Your task to perform on an android device: change the clock display to analog Image 0: 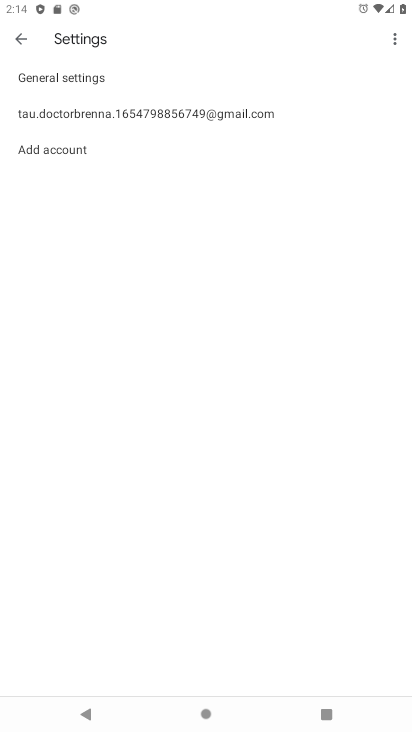
Step 0: press home button
Your task to perform on an android device: change the clock display to analog Image 1: 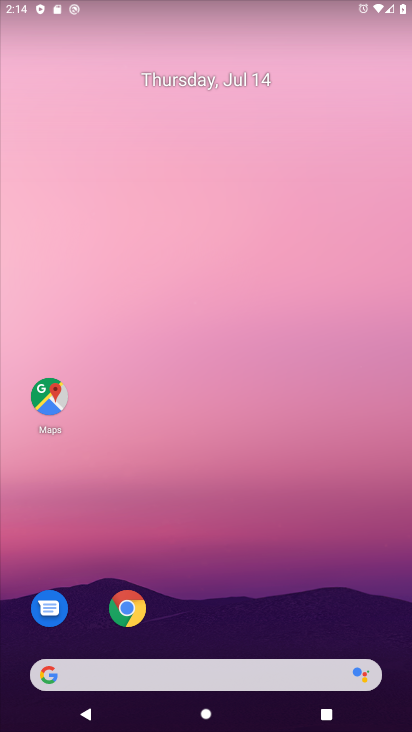
Step 1: drag from (230, 595) to (249, 241)
Your task to perform on an android device: change the clock display to analog Image 2: 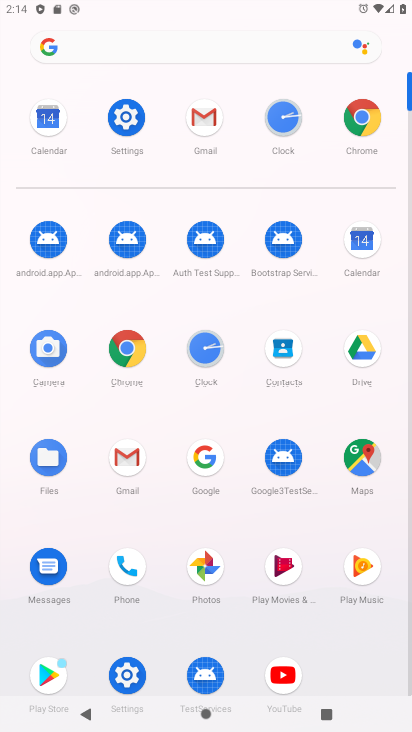
Step 2: click (203, 351)
Your task to perform on an android device: change the clock display to analog Image 3: 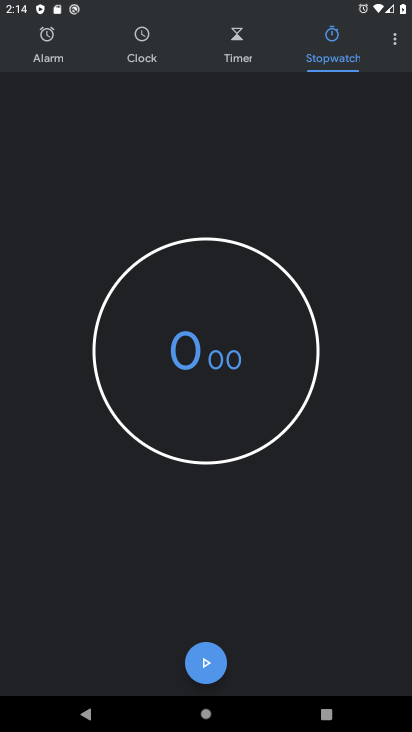
Step 3: click (395, 43)
Your task to perform on an android device: change the clock display to analog Image 4: 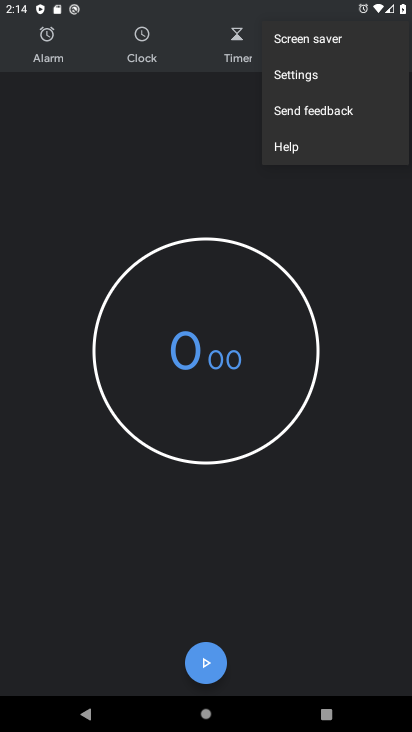
Step 4: click (303, 69)
Your task to perform on an android device: change the clock display to analog Image 5: 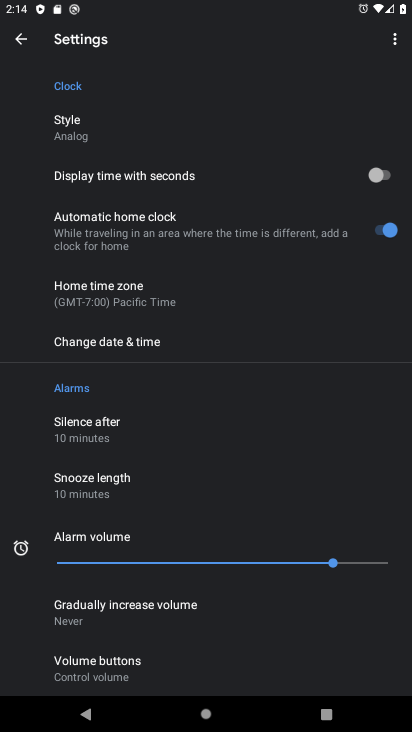
Step 5: task complete